Your task to perform on an android device: turn off location history Image 0: 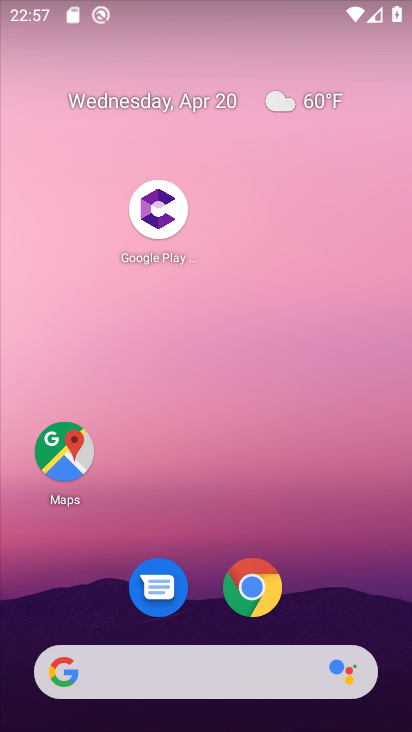
Step 0: drag from (205, 626) to (260, 33)
Your task to perform on an android device: turn off location history Image 1: 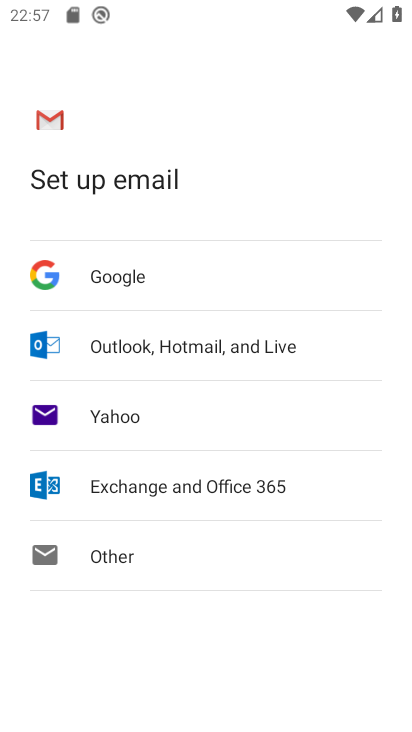
Step 1: press home button
Your task to perform on an android device: turn off location history Image 2: 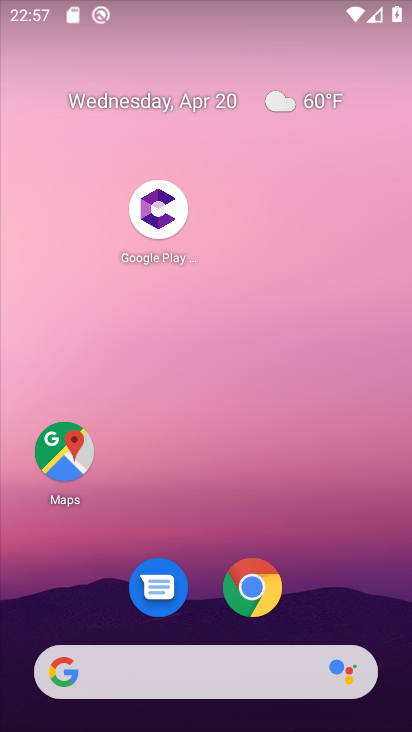
Step 2: drag from (209, 620) to (258, 58)
Your task to perform on an android device: turn off location history Image 3: 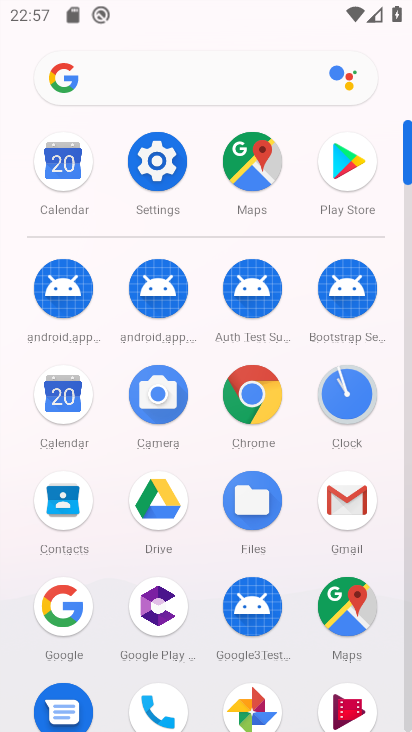
Step 3: click (153, 154)
Your task to perform on an android device: turn off location history Image 4: 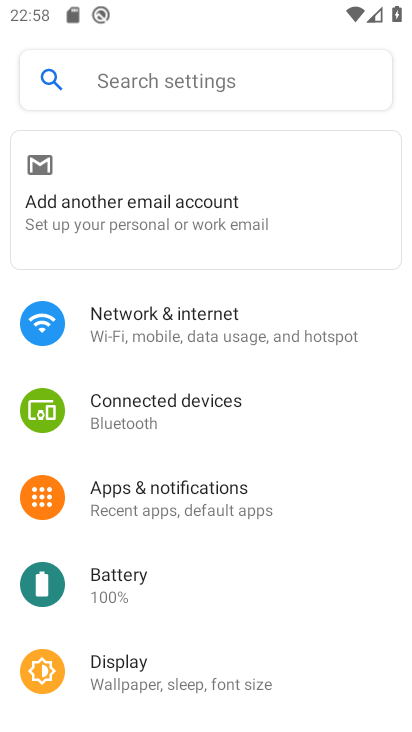
Step 4: drag from (285, 694) to (311, 145)
Your task to perform on an android device: turn off location history Image 5: 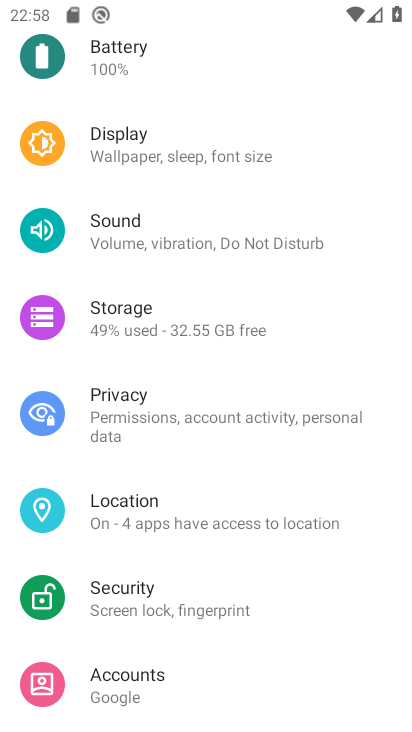
Step 5: click (190, 503)
Your task to perform on an android device: turn off location history Image 6: 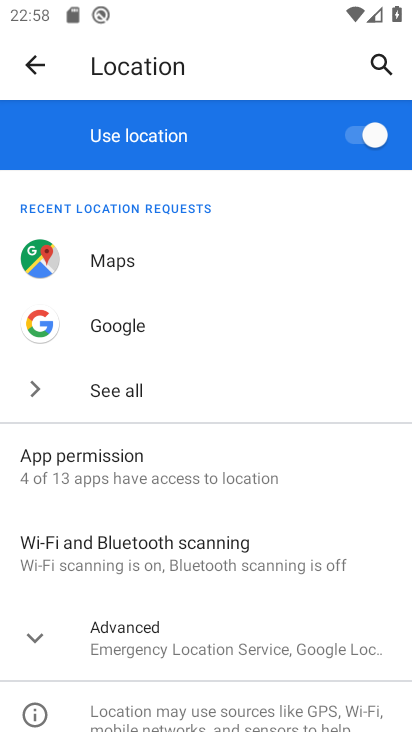
Step 6: click (32, 634)
Your task to perform on an android device: turn off location history Image 7: 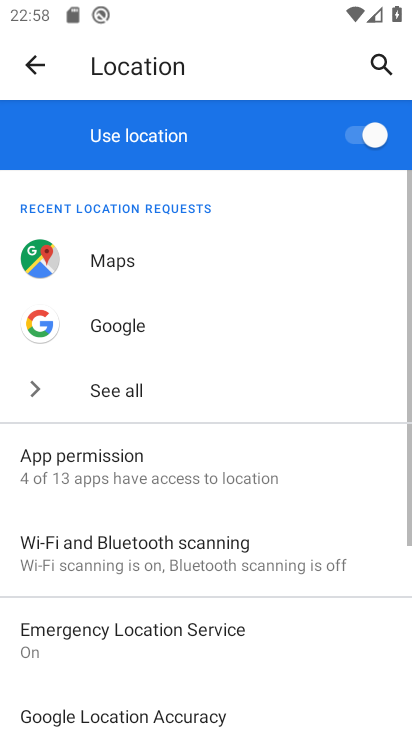
Step 7: drag from (211, 645) to (237, 285)
Your task to perform on an android device: turn off location history Image 8: 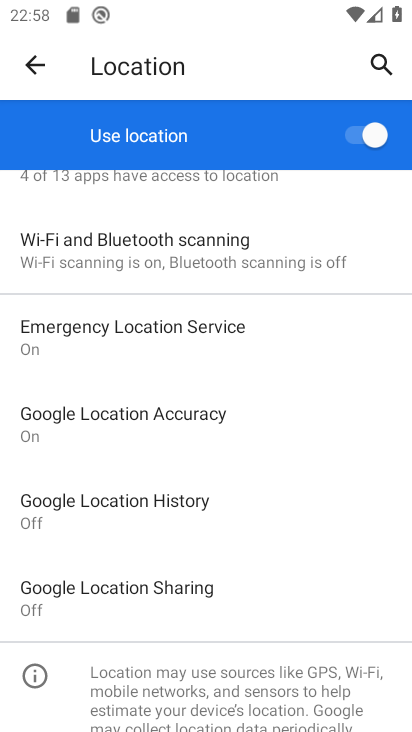
Step 8: click (115, 515)
Your task to perform on an android device: turn off location history Image 9: 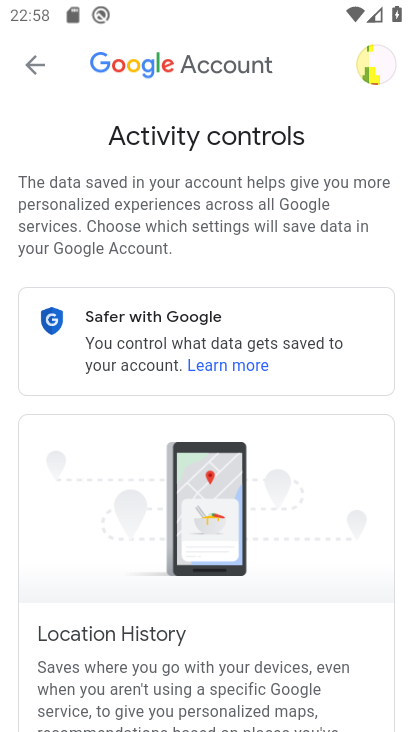
Step 9: drag from (234, 687) to (269, 192)
Your task to perform on an android device: turn off location history Image 10: 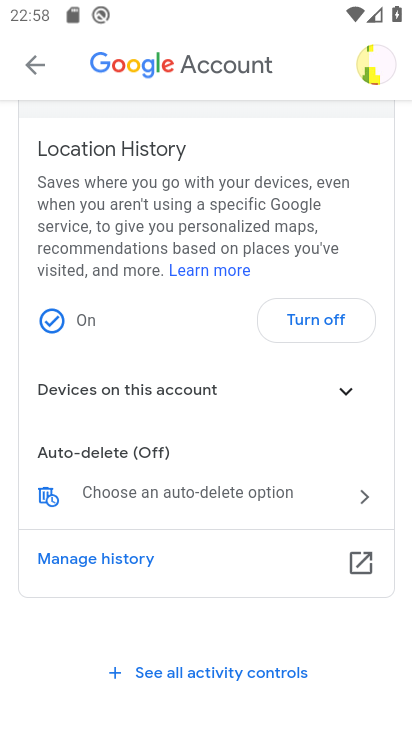
Step 10: click (318, 321)
Your task to perform on an android device: turn off location history Image 11: 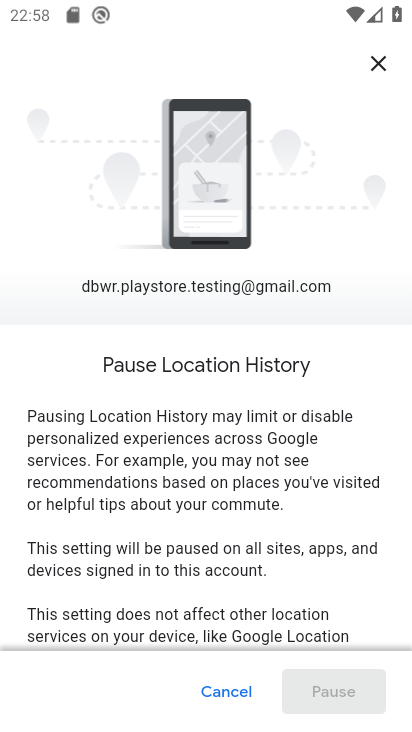
Step 11: drag from (221, 602) to (260, 93)
Your task to perform on an android device: turn off location history Image 12: 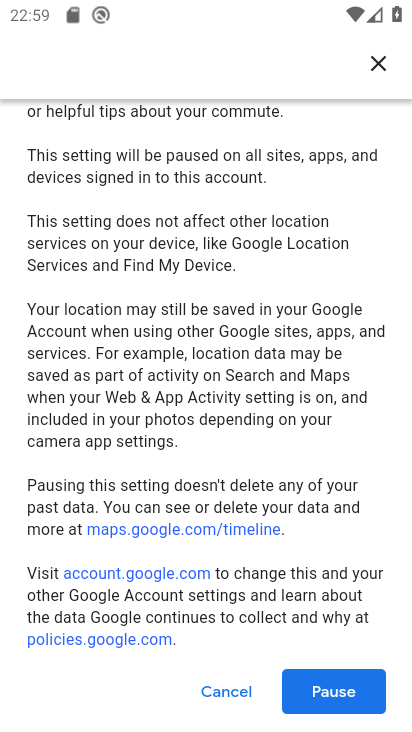
Step 12: click (331, 684)
Your task to perform on an android device: turn off location history Image 13: 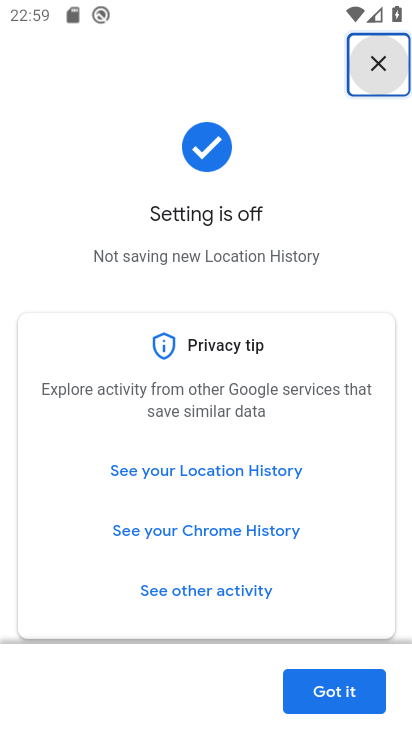
Step 13: click (342, 693)
Your task to perform on an android device: turn off location history Image 14: 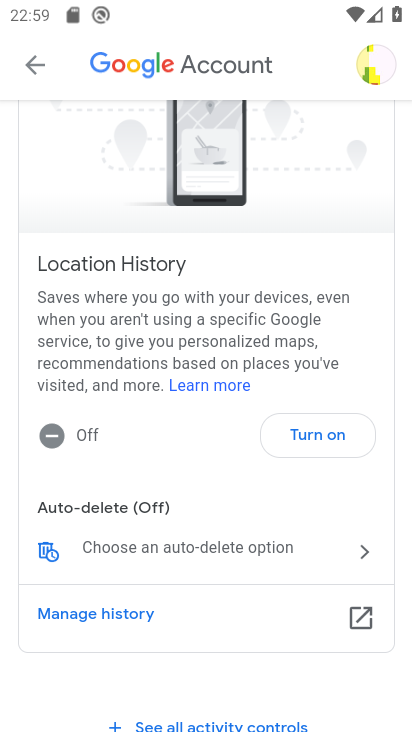
Step 14: task complete